Your task to perform on an android device: toggle data saver in the chrome app Image 0: 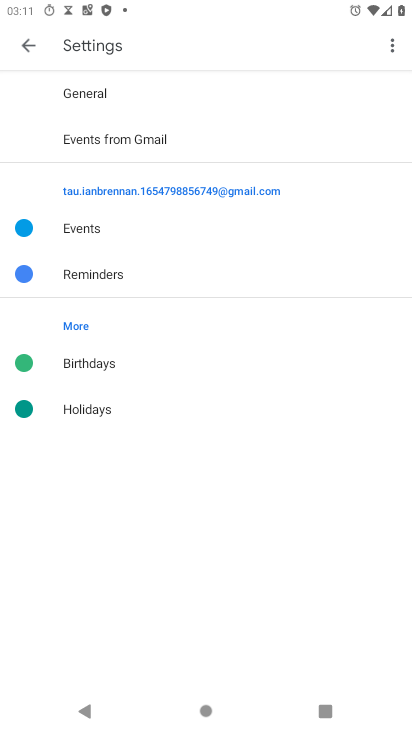
Step 0: press home button
Your task to perform on an android device: toggle data saver in the chrome app Image 1: 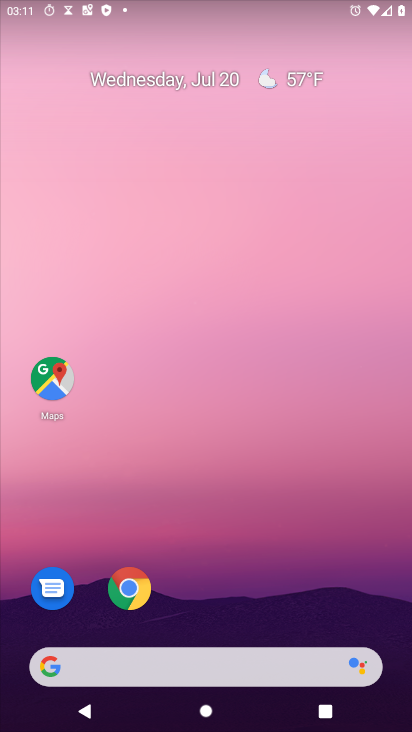
Step 1: drag from (292, 666) to (130, 2)
Your task to perform on an android device: toggle data saver in the chrome app Image 2: 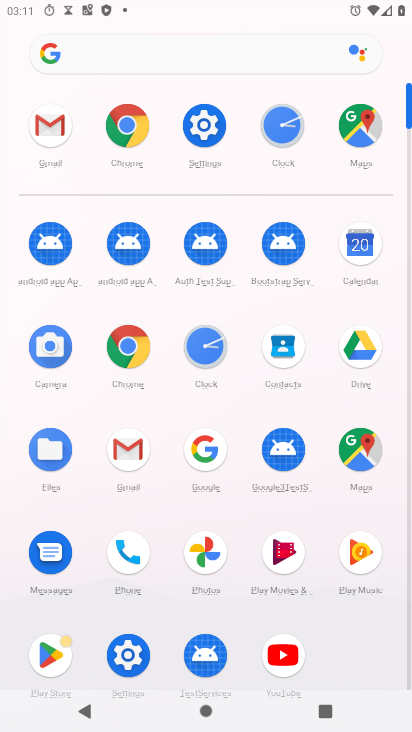
Step 2: click (132, 346)
Your task to perform on an android device: toggle data saver in the chrome app Image 3: 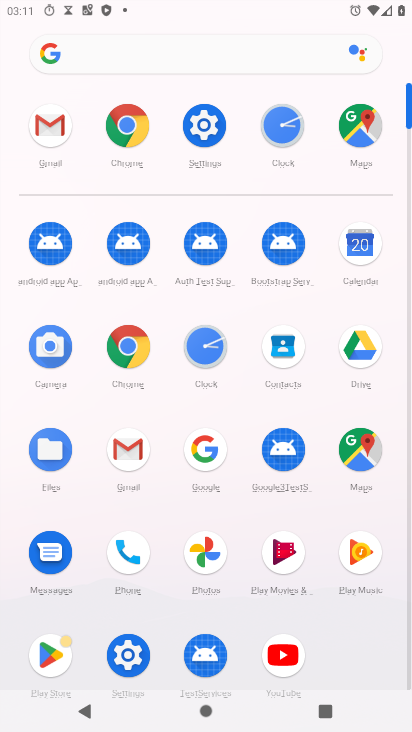
Step 3: click (132, 346)
Your task to perform on an android device: toggle data saver in the chrome app Image 4: 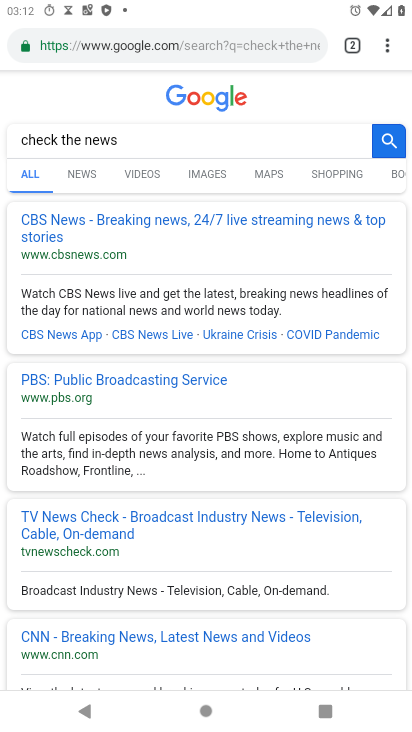
Step 4: drag from (388, 40) to (349, 274)
Your task to perform on an android device: toggle data saver in the chrome app Image 5: 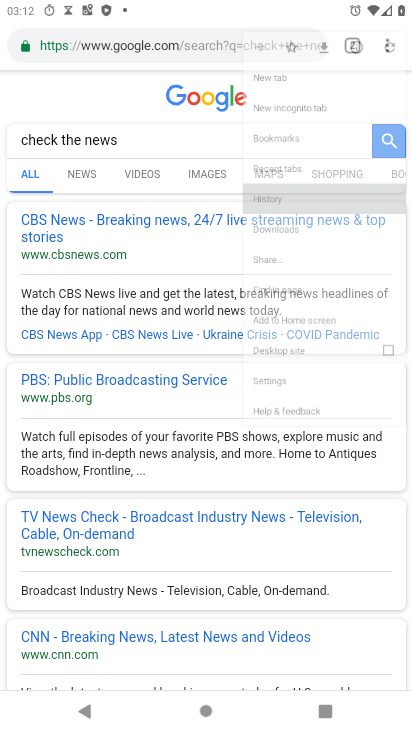
Step 5: drag from (337, 345) to (319, 405)
Your task to perform on an android device: toggle data saver in the chrome app Image 6: 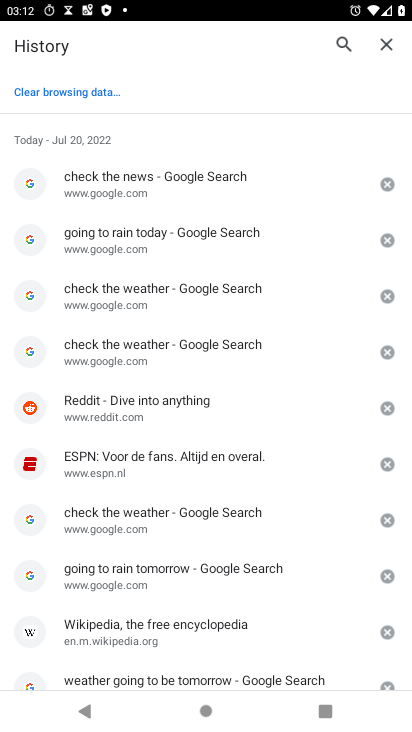
Step 6: click (284, 504)
Your task to perform on an android device: toggle data saver in the chrome app Image 7: 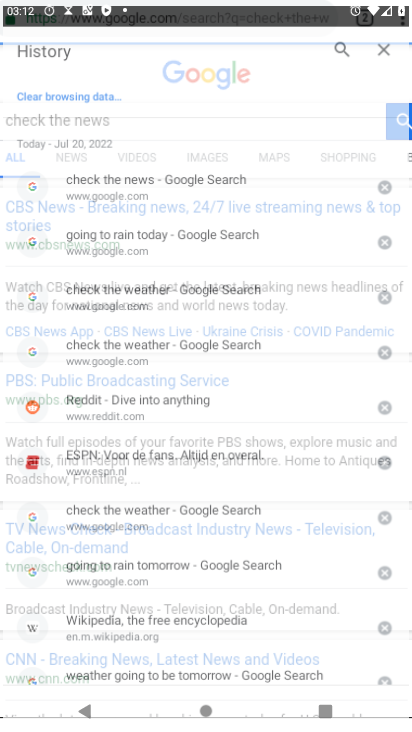
Step 7: press back button
Your task to perform on an android device: toggle data saver in the chrome app Image 8: 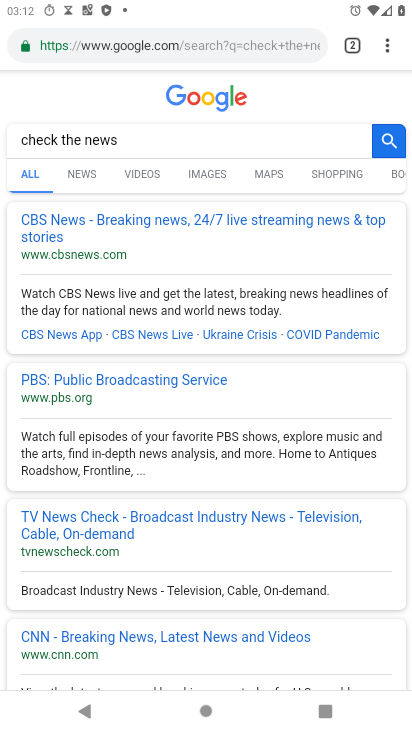
Step 8: drag from (391, 45) to (249, 522)
Your task to perform on an android device: toggle data saver in the chrome app Image 9: 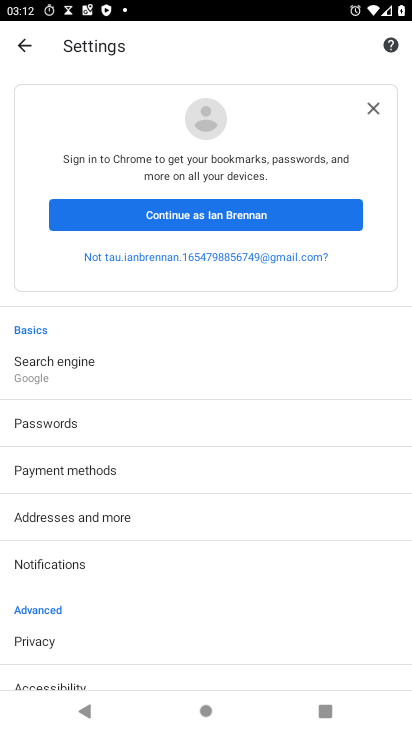
Step 9: drag from (96, 560) to (139, 285)
Your task to perform on an android device: toggle data saver in the chrome app Image 10: 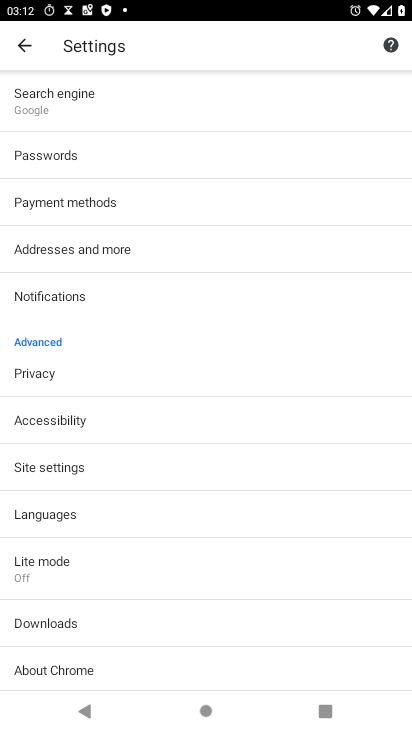
Step 10: click (68, 577)
Your task to perform on an android device: toggle data saver in the chrome app Image 11: 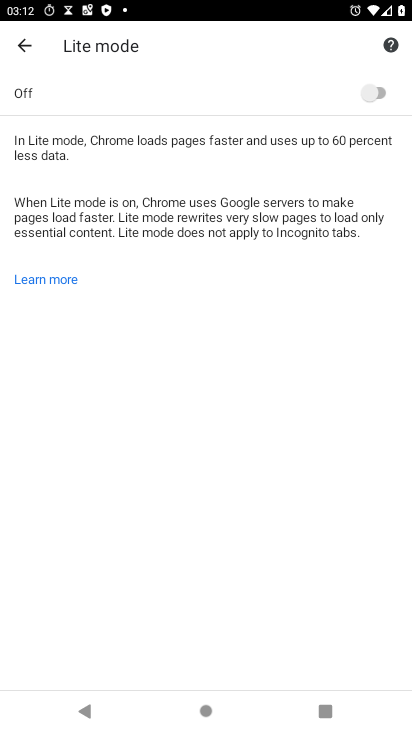
Step 11: click (381, 85)
Your task to perform on an android device: toggle data saver in the chrome app Image 12: 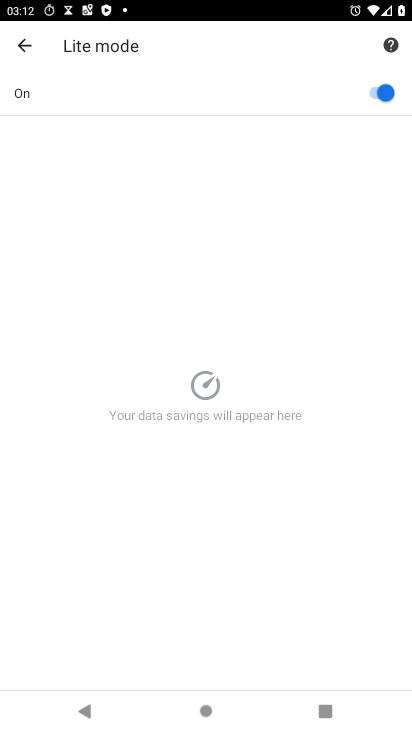
Step 12: task complete